Your task to perform on an android device: turn on showing notifications on the lock screen Image 0: 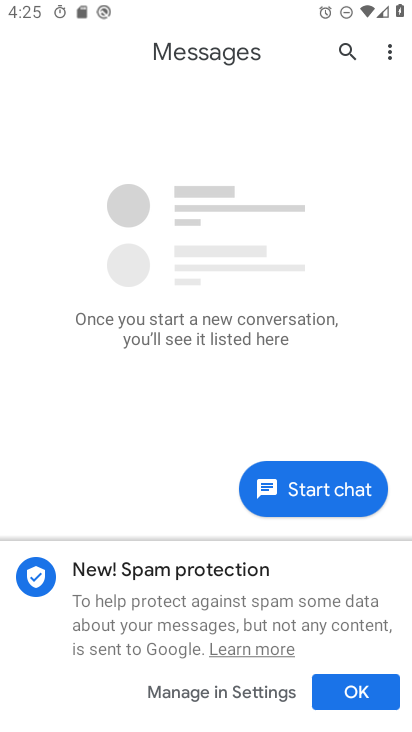
Step 0: press home button
Your task to perform on an android device: turn on showing notifications on the lock screen Image 1: 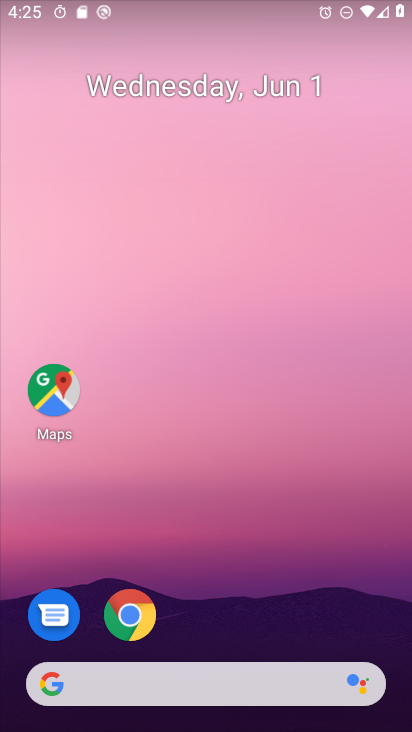
Step 1: drag from (283, 606) to (173, 27)
Your task to perform on an android device: turn on showing notifications on the lock screen Image 2: 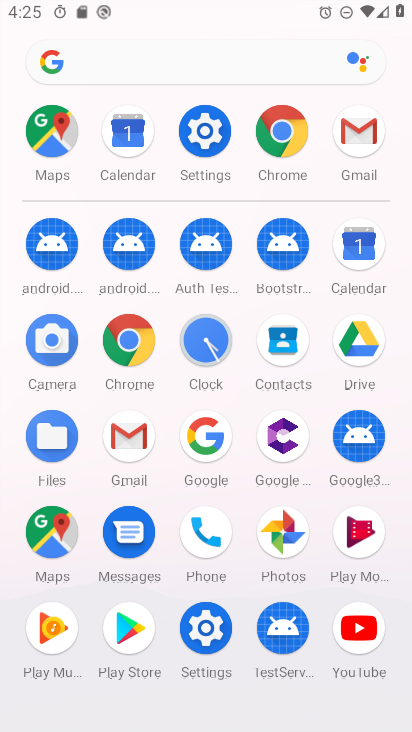
Step 2: click (212, 138)
Your task to perform on an android device: turn on showing notifications on the lock screen Image 3: 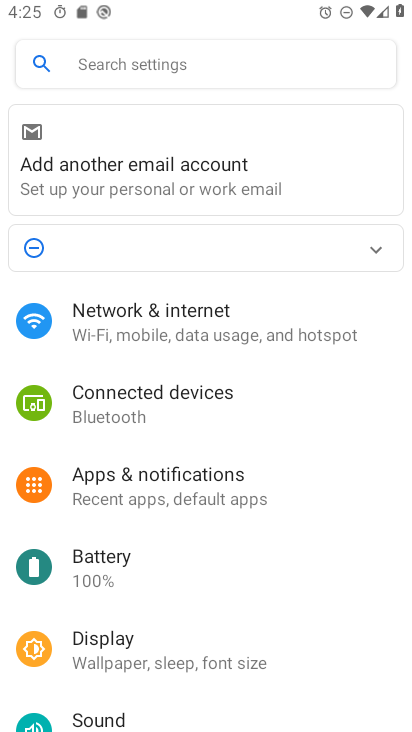
Step 3: click (206, 479)
Your task to perform on an android device: turn on showing notifications on the lock screen Image 4: 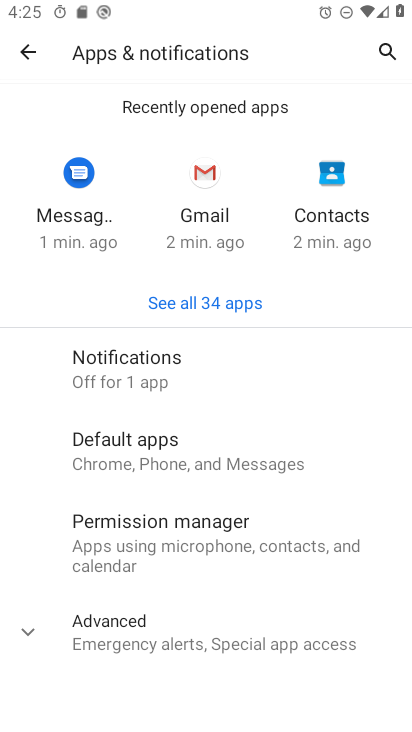
Step 4: click (193, 372)
Your task to perform on an android device: turn on showing notifications on the lock screen Image 5: 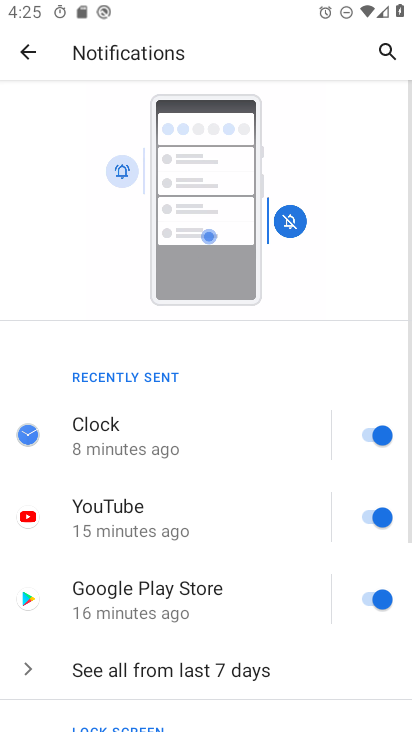
Step 5: drag from (286, 609) to (283, 233)
Your task to perform on an android device: turn on showing notifications on the lock screen Image 6: 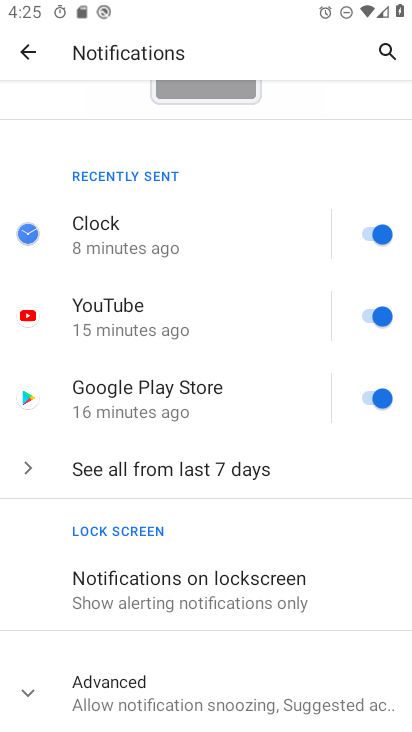
Step 6: click (273, 682)
Your task to perform on an android device: turn on showing notifications on the lock screen Image 7: 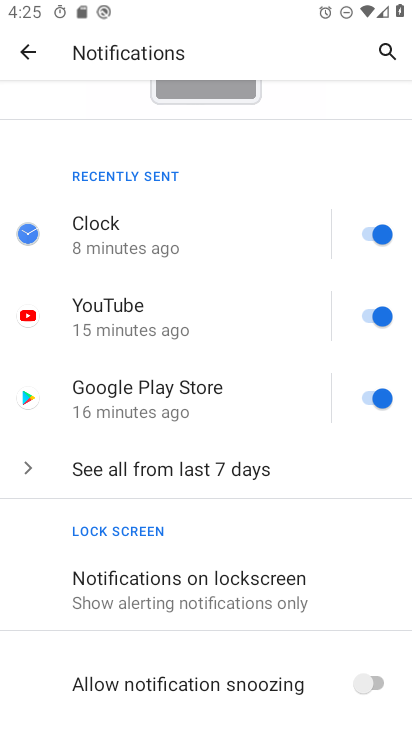
Step 7: click (221, 587)
Your task to perform on an android device: turn on showing notifications on the lock screen Image 8: 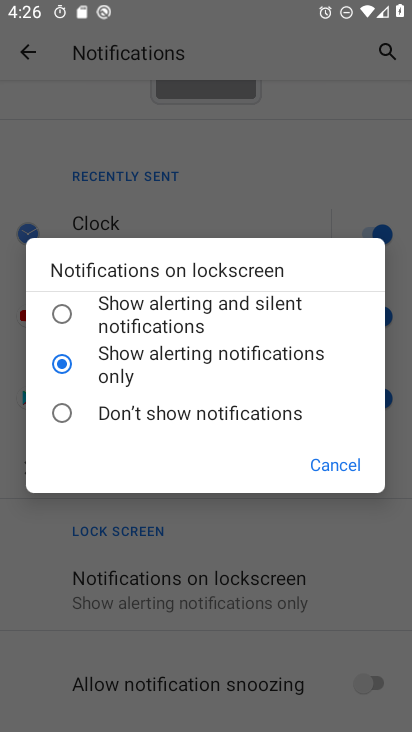
Step 8: click (274, 517)
Your task to perform on an android device: turn on showing notifications on the lock screen Image 9: 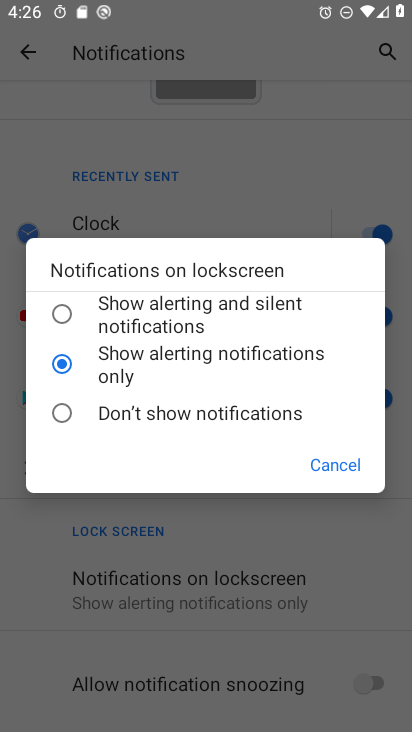
Step 9: click (197, 358)
Your task to perform on an android device: turn on showing notifications on the lock screen Image 10: 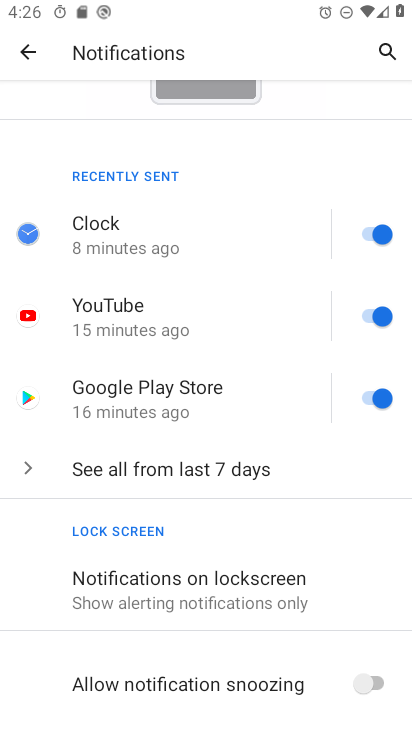
Step 10: task complete